Your task to perform on an android device: Open privacy settings Image 0: 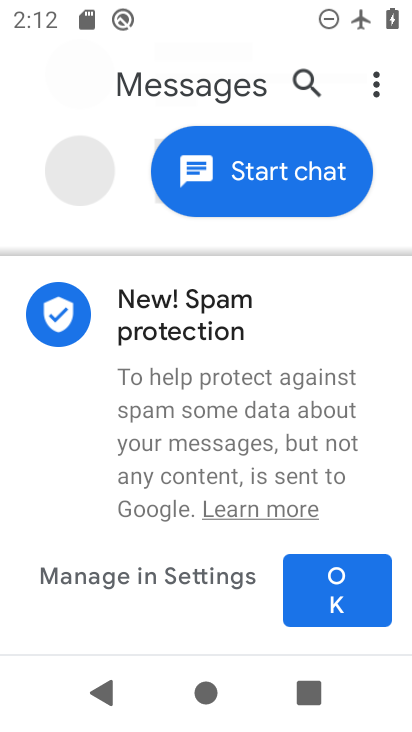
Step 0: press home button
Your task to perform on an android device: Open privacy settings Image 1: 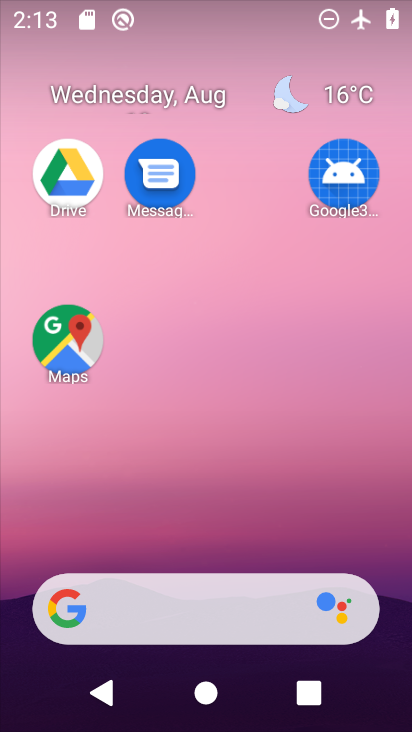
Step 1: drag from (158, 532) to (198, 4)
Your task to perform on an android device: Open privacy settings Image 2: 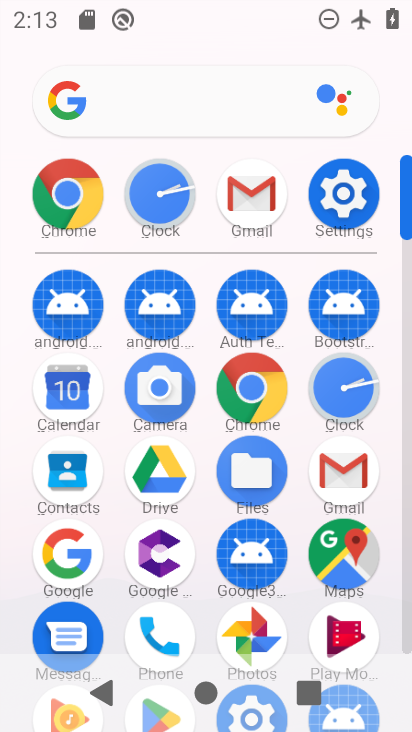
Step 2: click (324, 212)
Your task to perform on an android device: Open privacy settings Image 3: 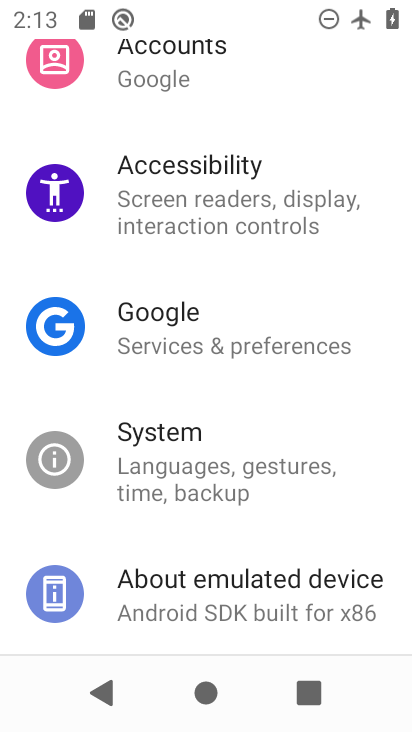
Step 3: drag from (220, 262) to (217, 632)
Your task to perform on an android device: Open privacy settings Image 4: 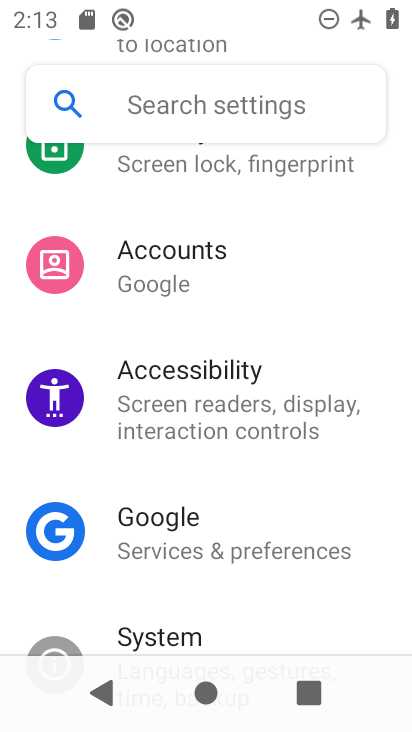
Step 4: drag from (197, 203) to (176, 583)
Your task to perform on an android device: Open privacy settings Image 5: 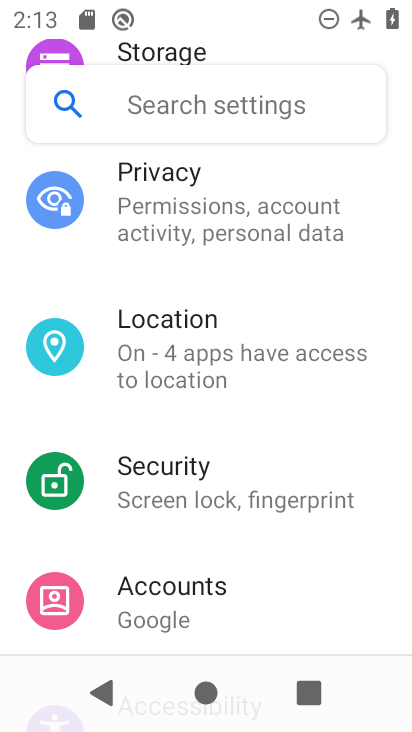
Step 5: click (238, 226)
Your task to perform on an android device: Open privacy settings Image 6: 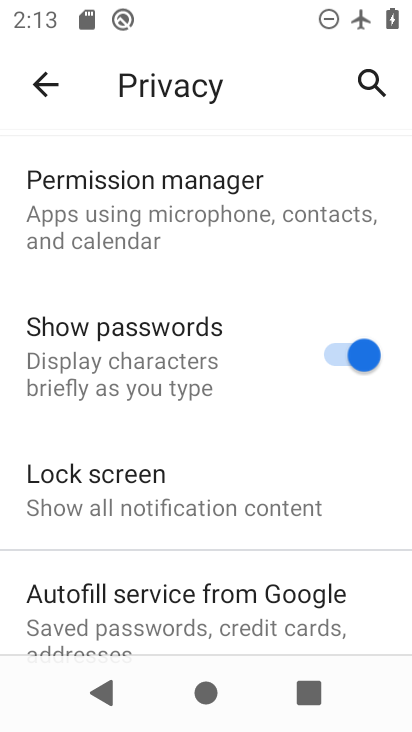
Step 6: task complete